Your task to perform on an android device: open chrome privacy settings Image 0: 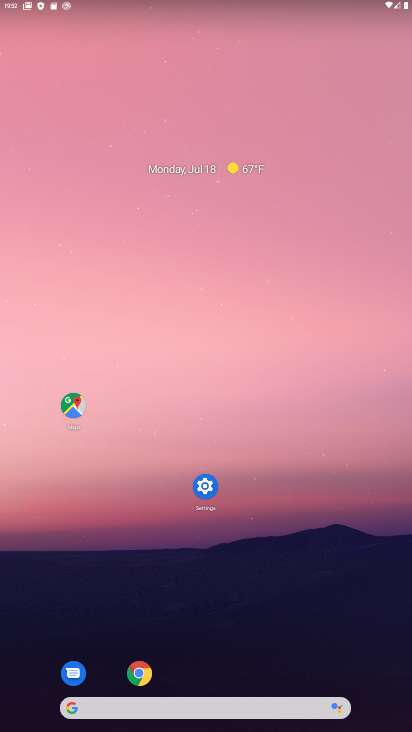
Step 0: drag from (303, 504) to (303, 136)
Your task to perform on an android device: open chrome privacy settings Image 1: 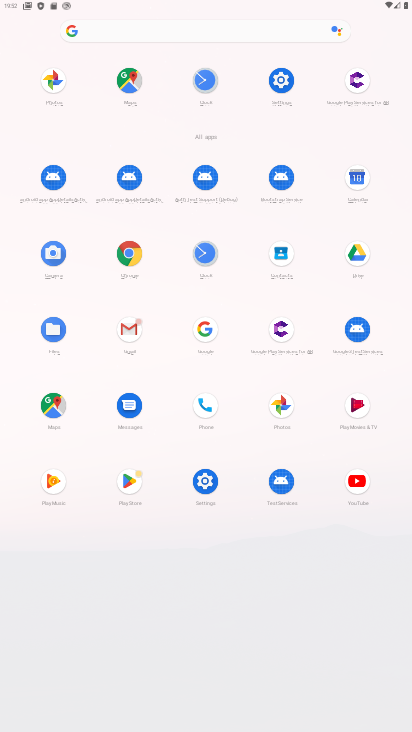
Step 1: click (210, 481)
Your task to perform on an android device: open chrome privacy settings Image 2: 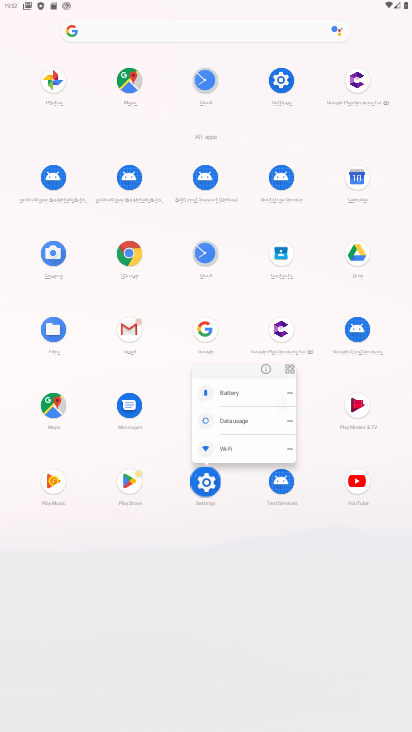
Step 2: click (211, 481)
Your task to perform on an android device: open chrome privacy settings Image 3: 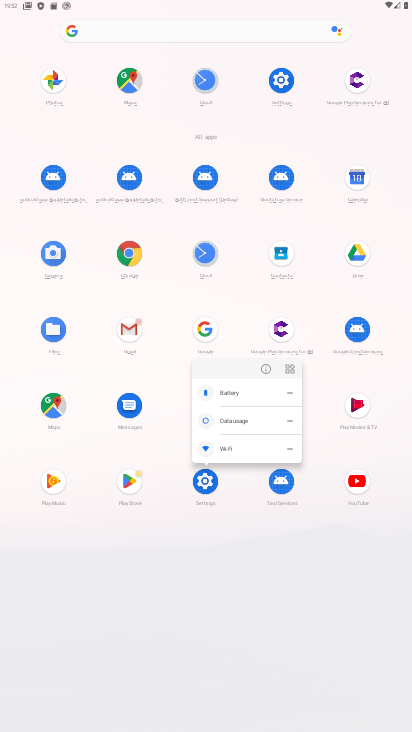
Step 3: click (213, 482)
Your task to perform on an android device: open chrome privacy settings Image 4: 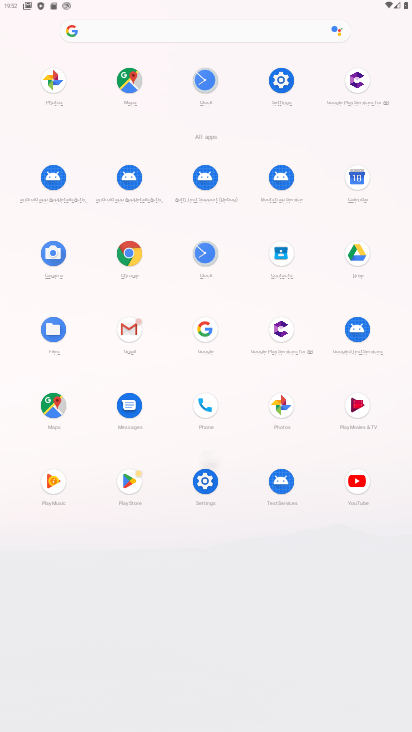
Step 4: click (214, 484)
Your task to perform on an android device: open chrome privacy settings Image 5: 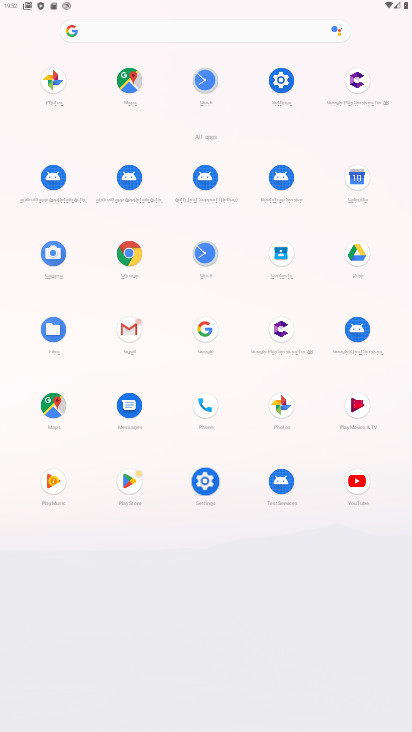
Step 5: click (217, 493)
Your task to perform on an android device: open chrome privacy settings Image 6: 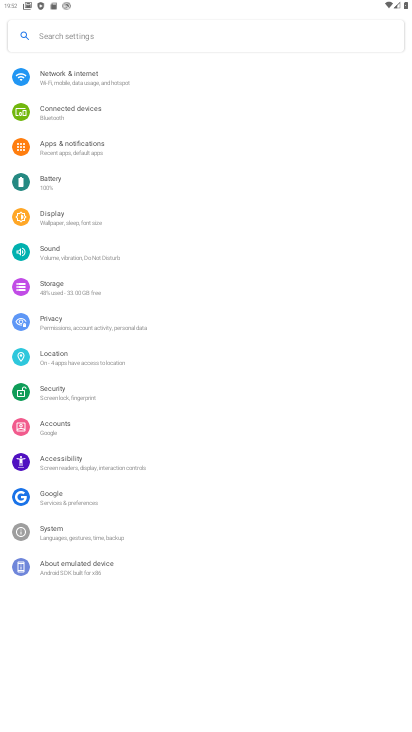
Step 6: click (213, 480)
Your task to perform on an android device: open chrome privacy settings Image 7: 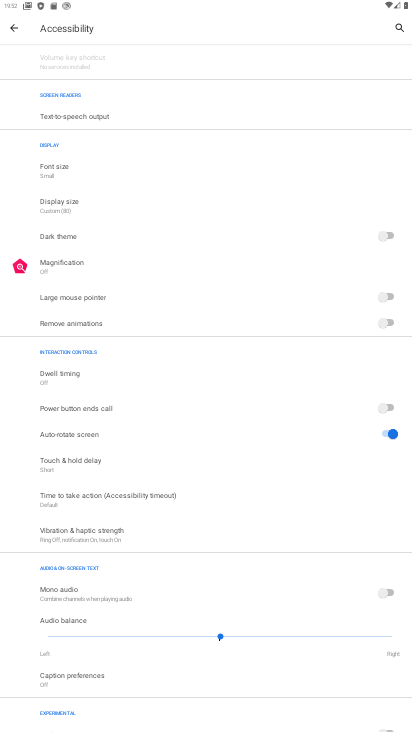
Step 7: click (16, 20)
Your task to perform on an android device: open chrome privacy settings Image 8: 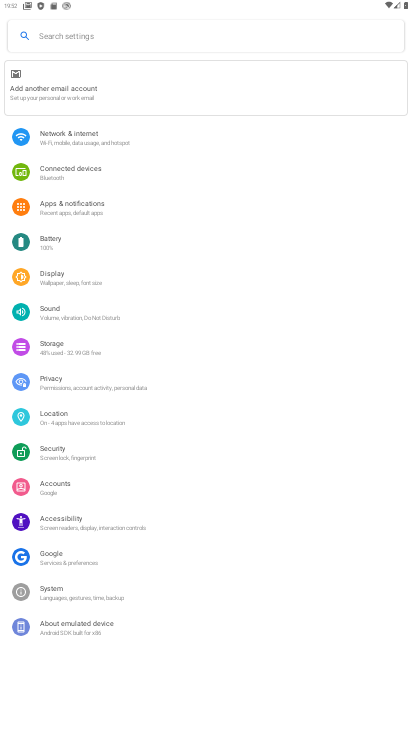
Step 8: click (48, 379)
Your task to perform on an android device: open chrome privacy settings Image 9: 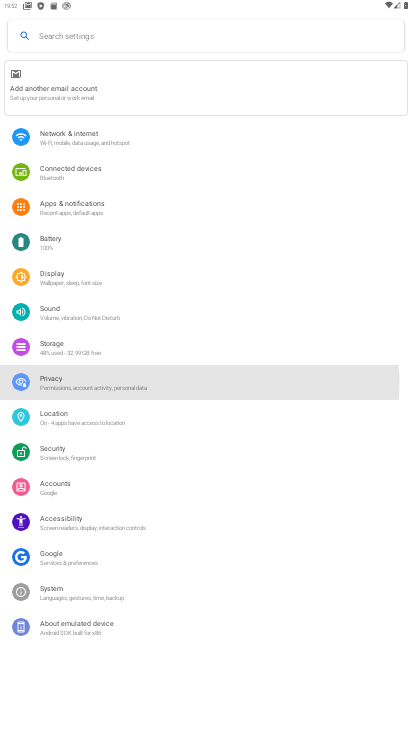
Step 9: click (48, 379)
Your task to perform on an android device: open chrome privacy settings Image 10: 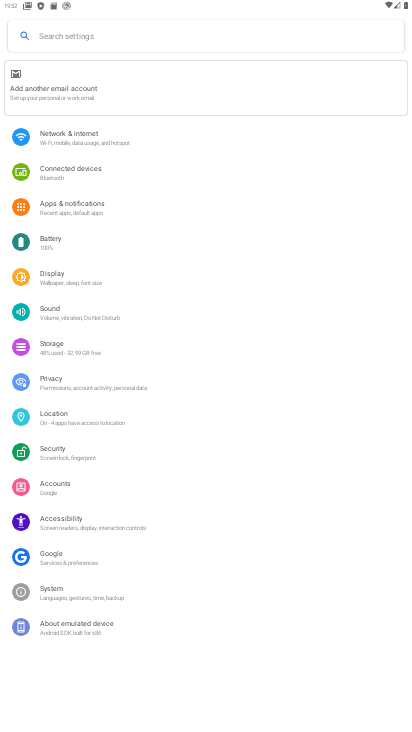
Step 10: click (49, 379)
Your task to perform on an android device: open chrome privacy settings Image 11: 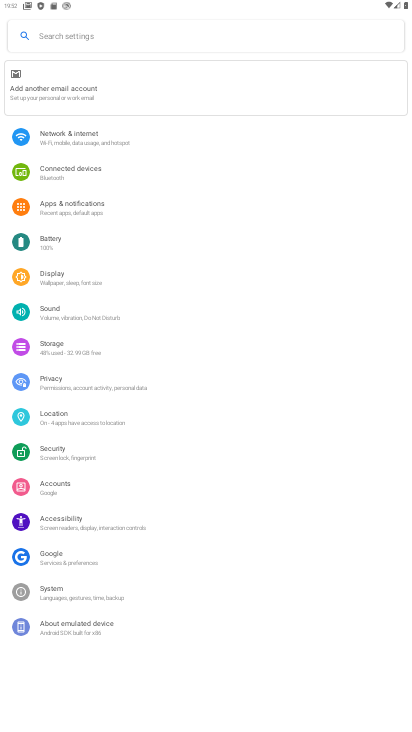
Step 11: click (50, 380)
Your task to perform on an android device: open chrome privacy settings Image 12: 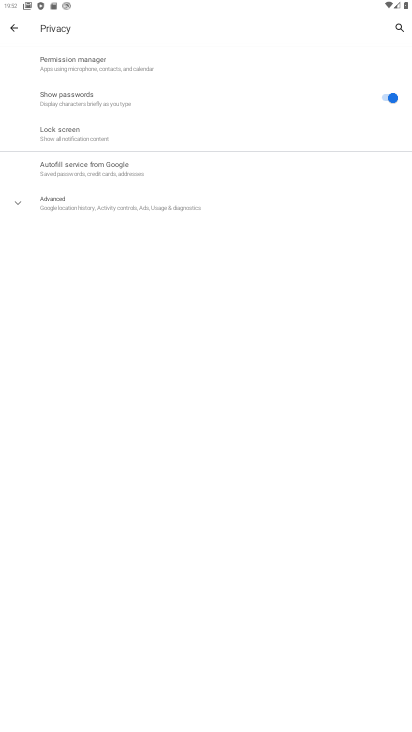
Step 12: click (17, 35)
Your task to perform on an android device: open chrome privacy settings Image 13: 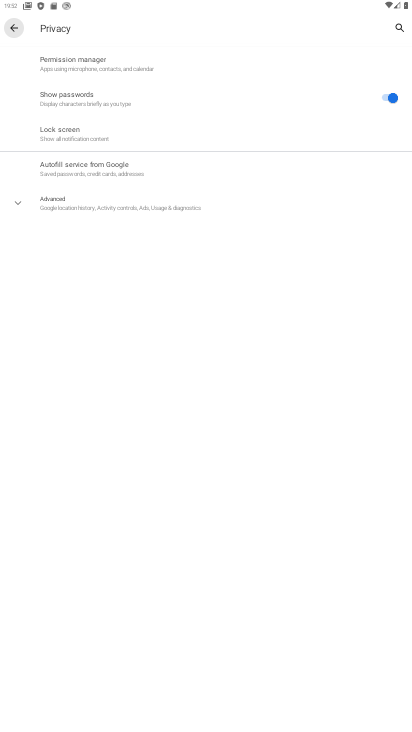
Step 13: click (17, 35)
Your task to perform on an android device: open chrome privacy settings Image 14: 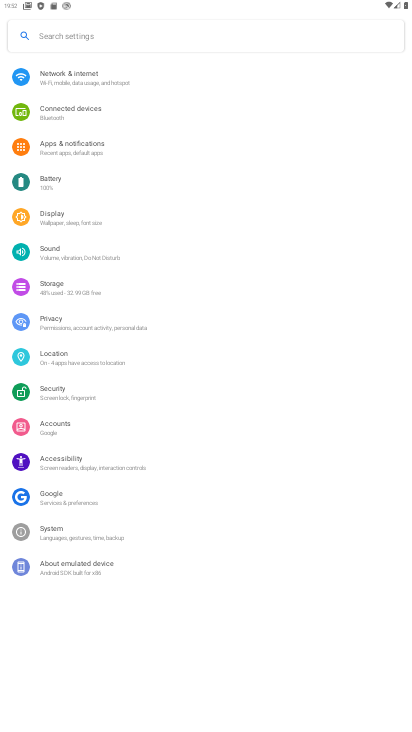
Step 14: click (13, 33)
Your task to perform on an android device: open chrome privacy settings Image 15: 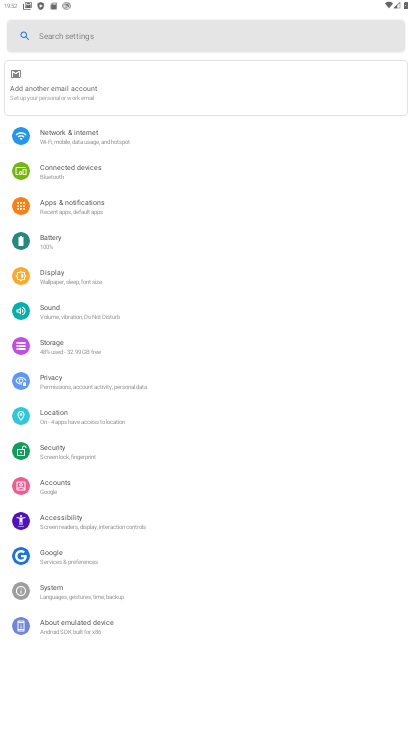
Step 15: click (13, 33)
Your task to perform on an android device: open chrome privacy settings Image 16: 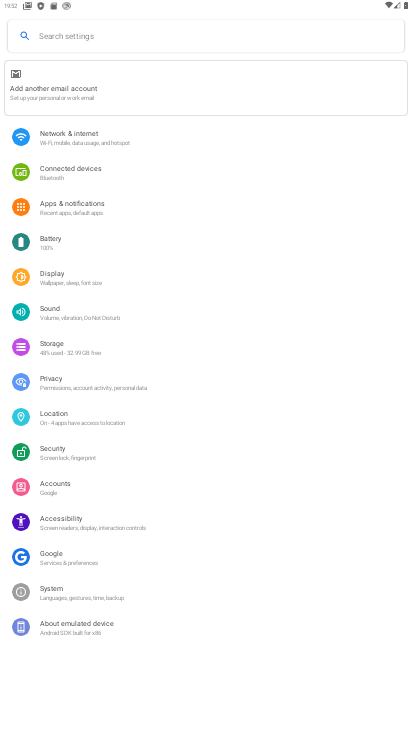
Step 16: press home button
Your task to perform on an android device: open chrome privacy settings Image 17: 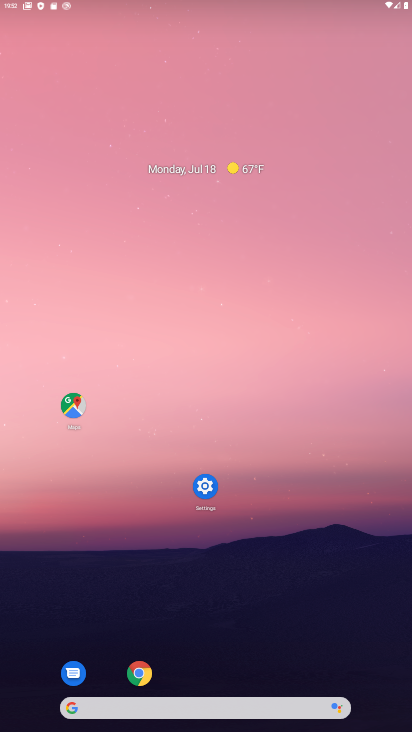
Step 17: drag from (255, 675) to (192, 37)
Your task to perform on an android device: open chrome privacy settings Image 18: 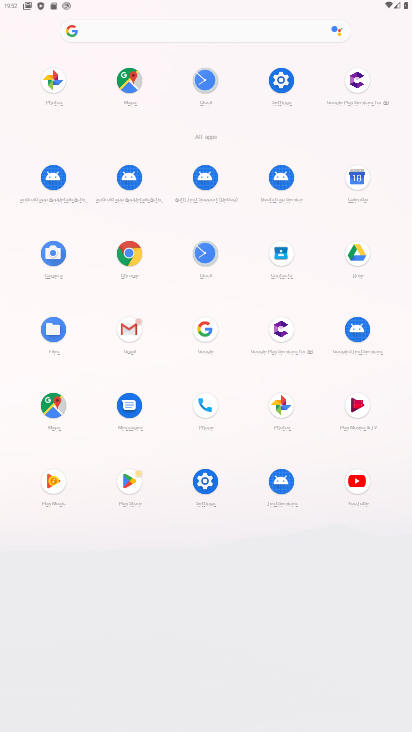
Step 18: click (126, 257)
Your task to perform on an android device: open chrome privacy settings Image 19: 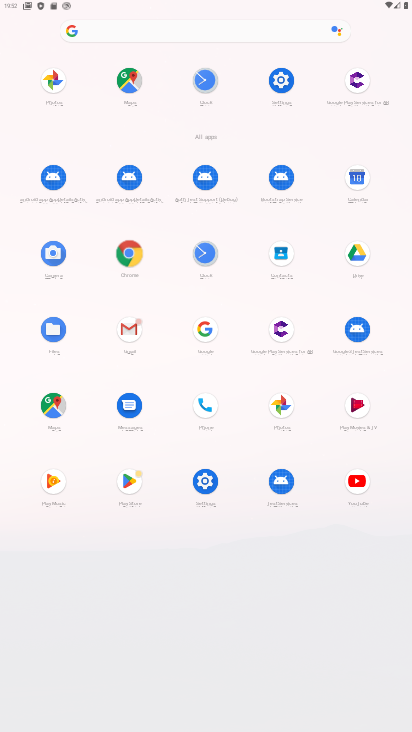
Step 19: click (129, 255)
Your task to perform on an android device: open chrome privacy settings Image 20: 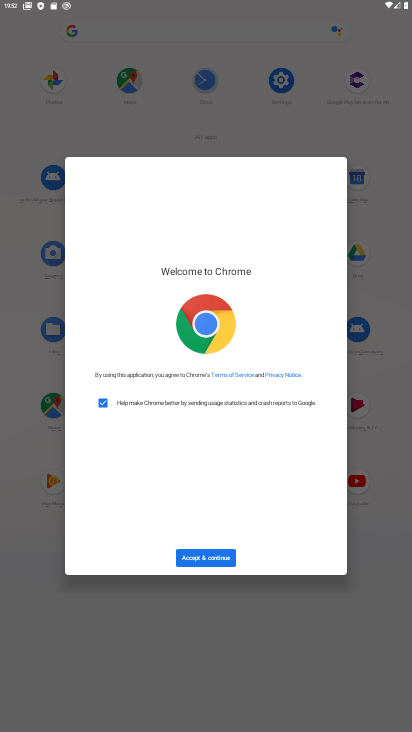
Step 20: click (203, 548)
Your task to perform on an android device: open chrome privacy settings Image 21: 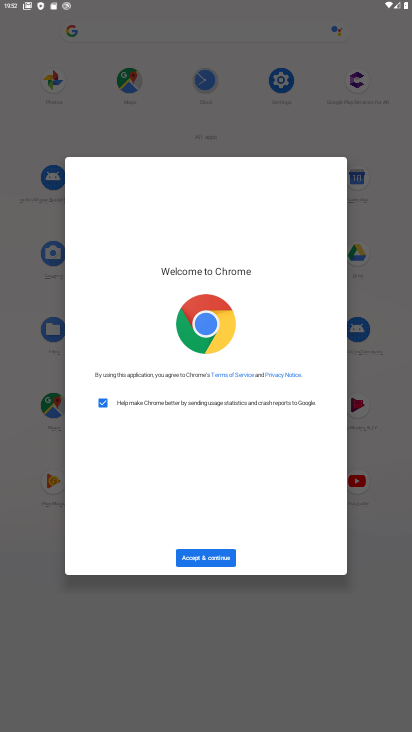
Step 21: click (208, 553)
Your task to perform on an android device: open chrome privacy settings Image 22: 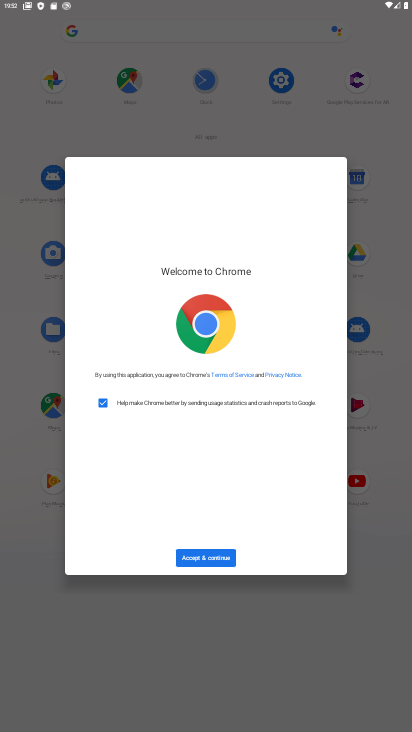
Step 22: click (208, 553)
Your task to perform on an android device: open chrome privacy settings Image 23: 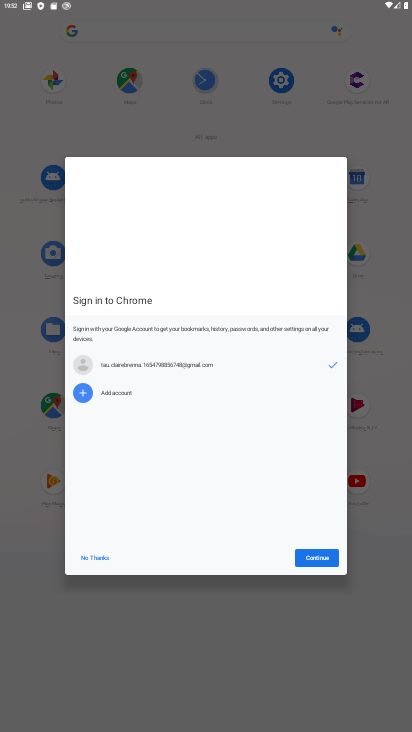
Step 23: click (208, 553)
Your task to perform on an android device: open chrome privacy settings Image 24: 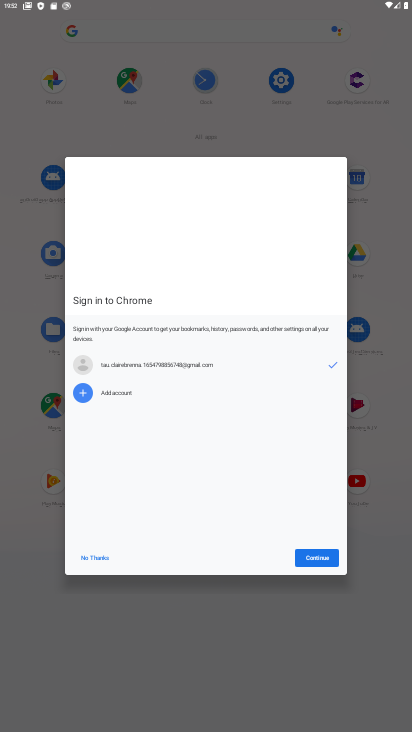
Step 24: click (306, 558)
Your task to perform on an android device: open chrome privacy settings Image 25: 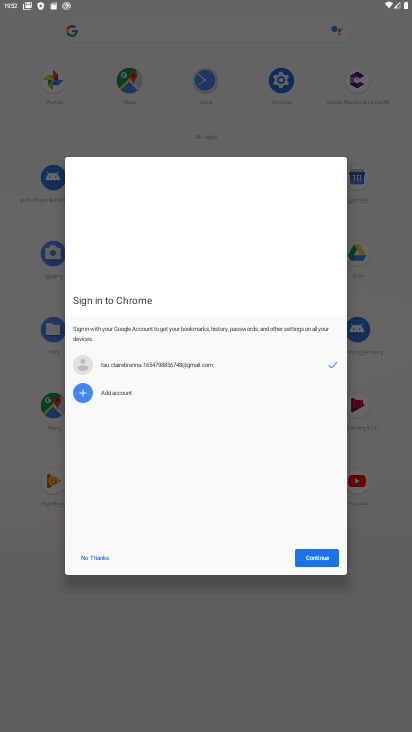
Step 25: click (306, 558)
Your task to perform on an android device: open chrome privacy settings Image 26: 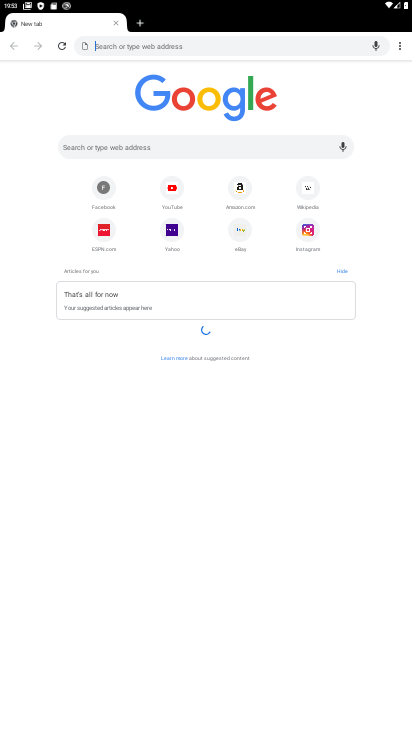
Step 26: click (392, 41)
Your task to perform on an android device: open chrome privacy settings Image 27: 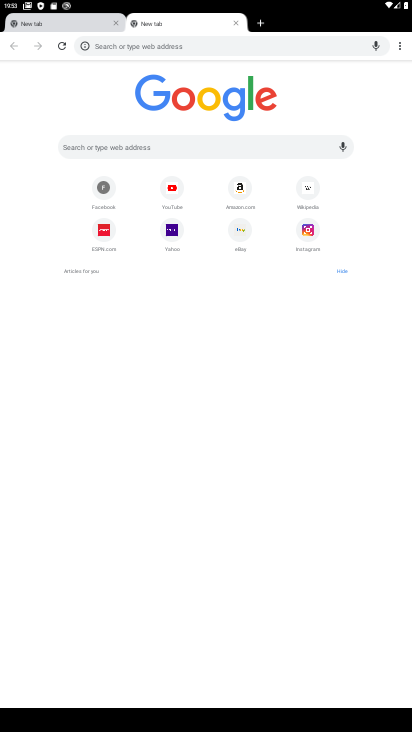
Step 27: click (399, 49)
Your task to perform on an android device: open chrome privacy settings Image 28: 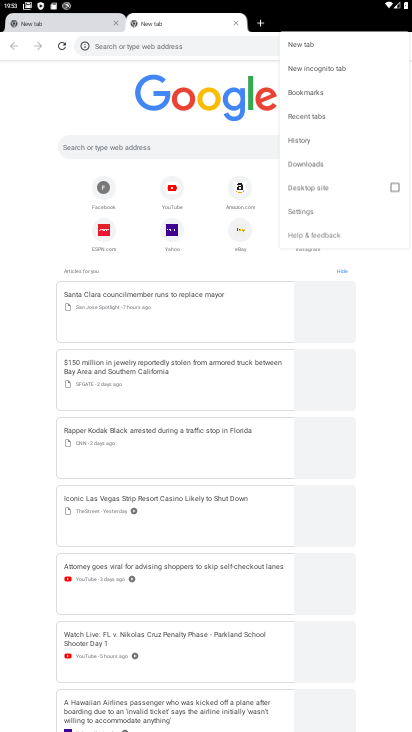
Step 28: click (399, 49)
Your task to perform on an android device: open chrome privacy settings Image 29: 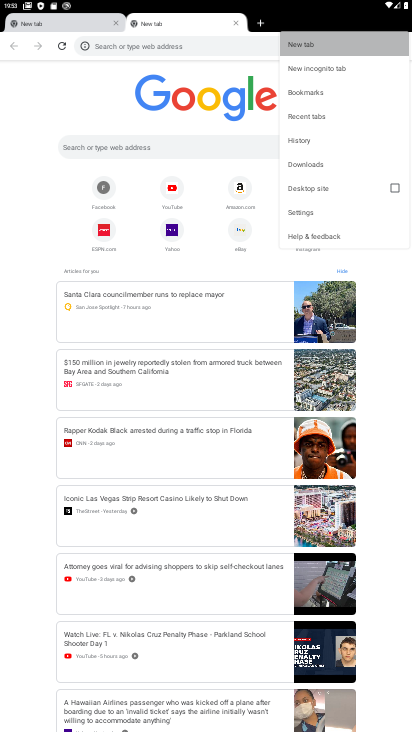
Step 29: drag from (397, 54) to (295, 218)
Your task to perform on an android device: open chrome privacy settings Image 30: 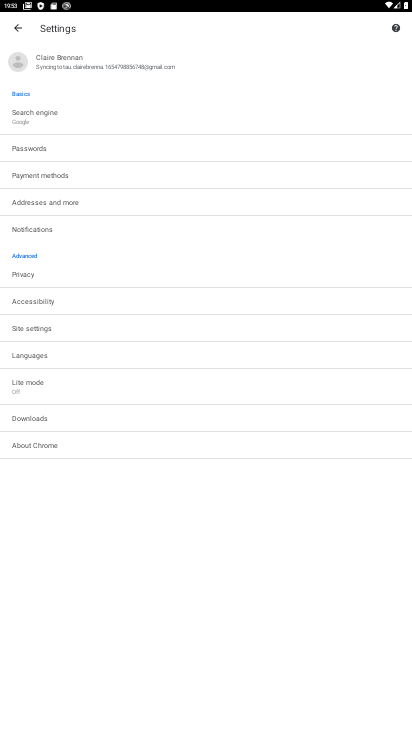
Step 30: click (31, 270)
Your task to perform on an android device: open chrome privacy settings Image 31: 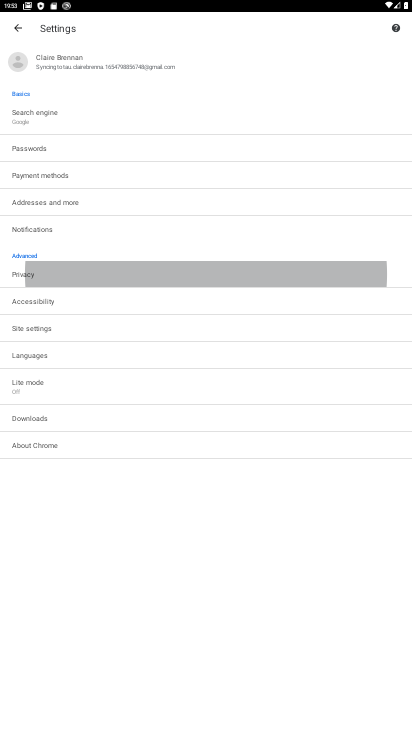
Step 31: click (30, 269)
Your task to perform on an android device: open chrome privacy settings Image 32: 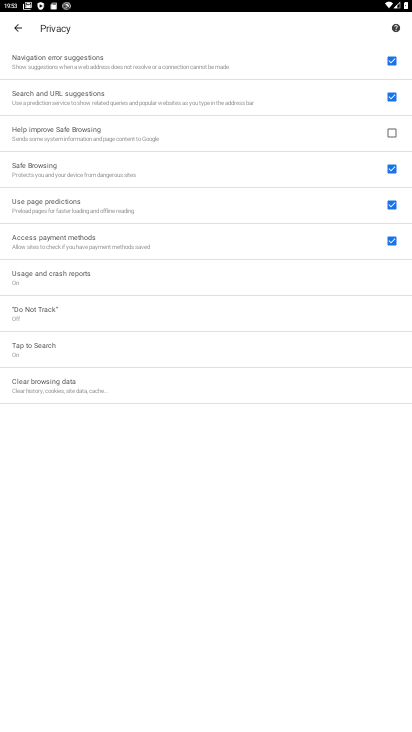
Step 32: task complete